Your task to perform on an android device: open app "ColorNote Notepad Notes" (install if not already installed) Image 0: 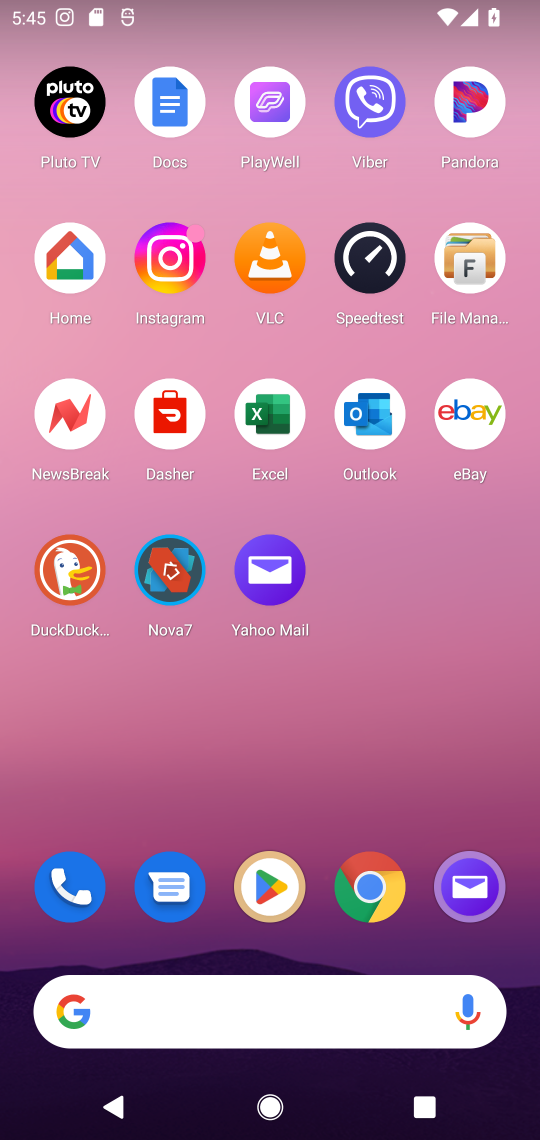
Step 0: click (271, 880)
Your task to perform on an android device: open app "ColorNote Notepad Notes" (install if not already installed) Image 1: 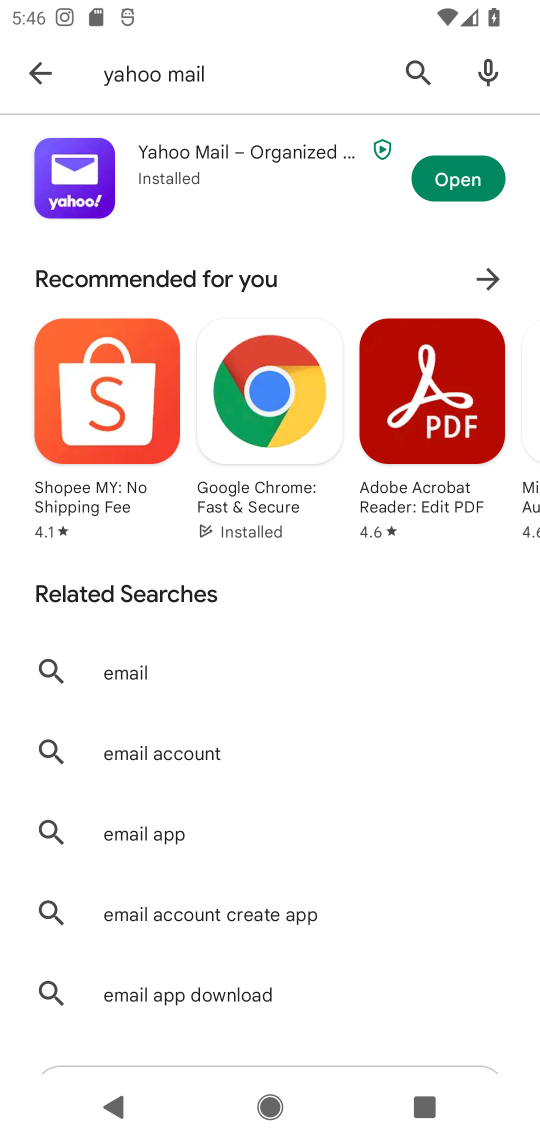
Step 1: click (411, 69)
Your task to perform on an android device: open app "ColorNote Notepad Notes" (install if not already installed) Image 2: 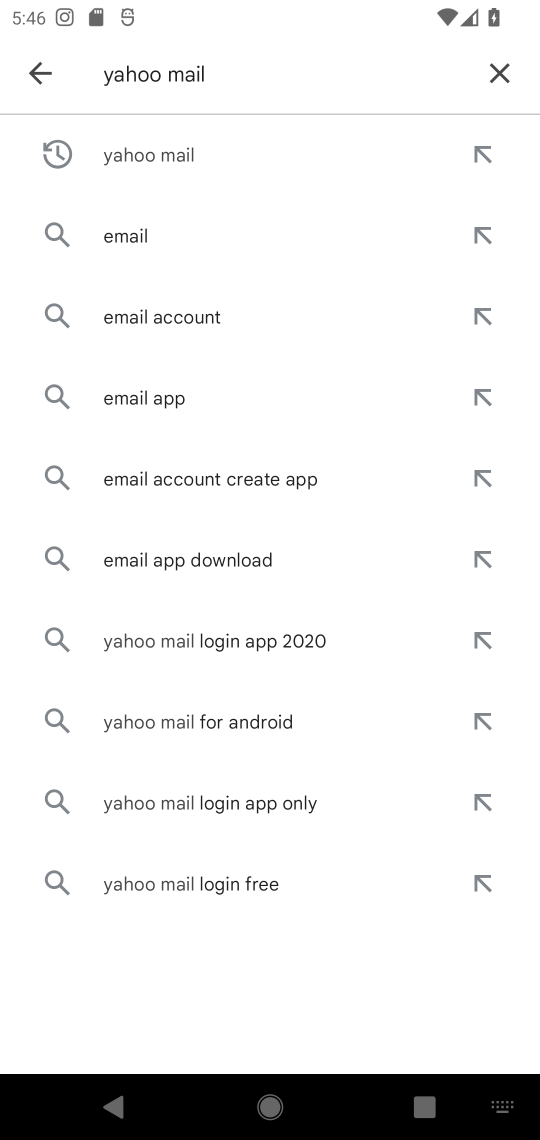
Step 2: click (494, 68)
Your task to perform on an android device: open app "ColorNote Notepad Notes" (install if not already installed) Image 3: 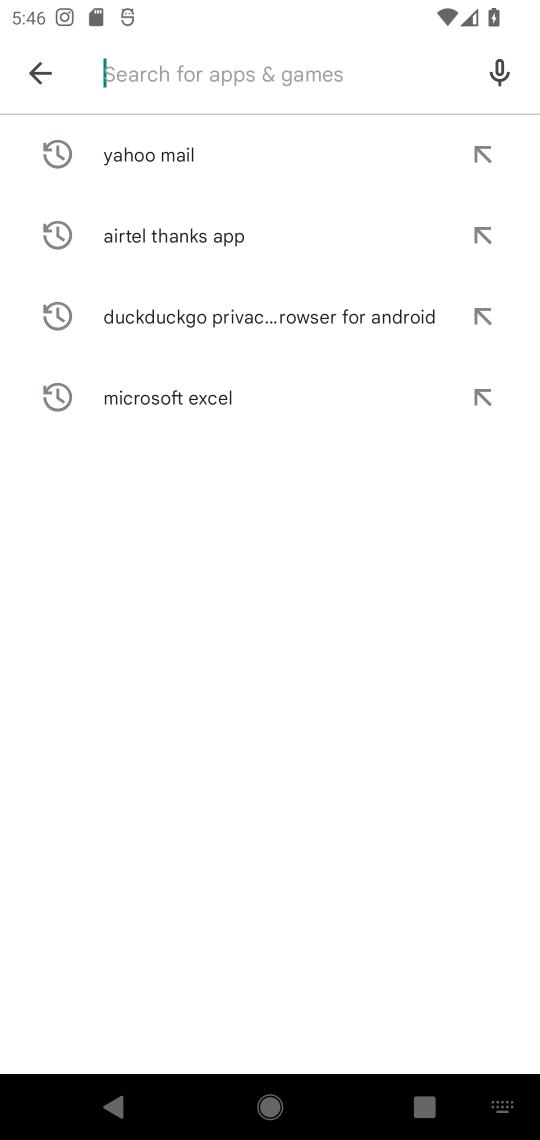
Step 3: type "ColorNote Notepad Notes"
Your task to perform on an android device: open app "ColorNote Notepad Notes" (install if not already installed) Image 4: 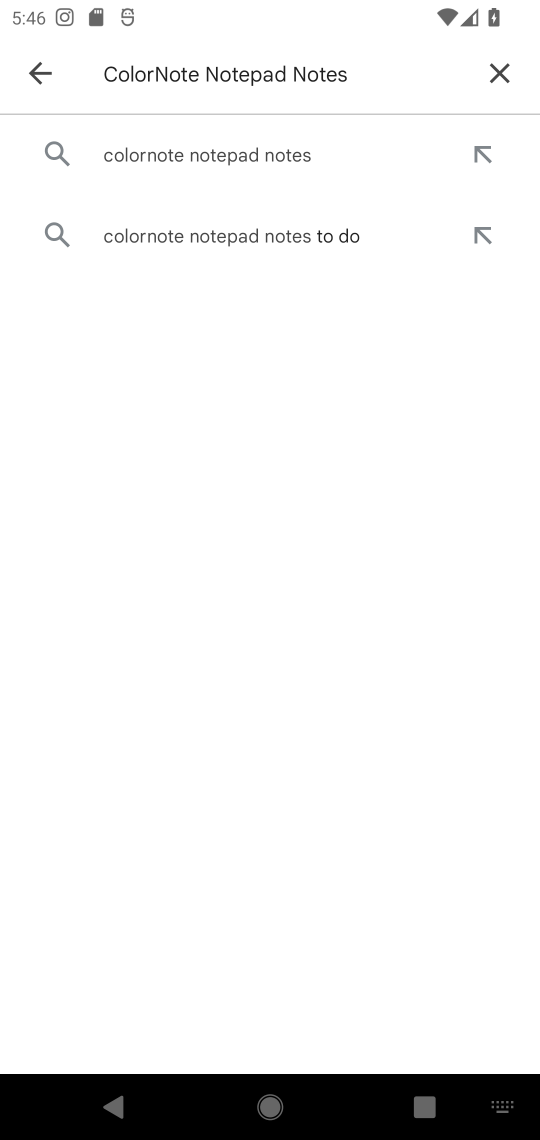
Step 4: click (238, 157)
Your task to perform on an android device: open app "ColorNote Notepad Notes" (install if not already installed) Image 5: 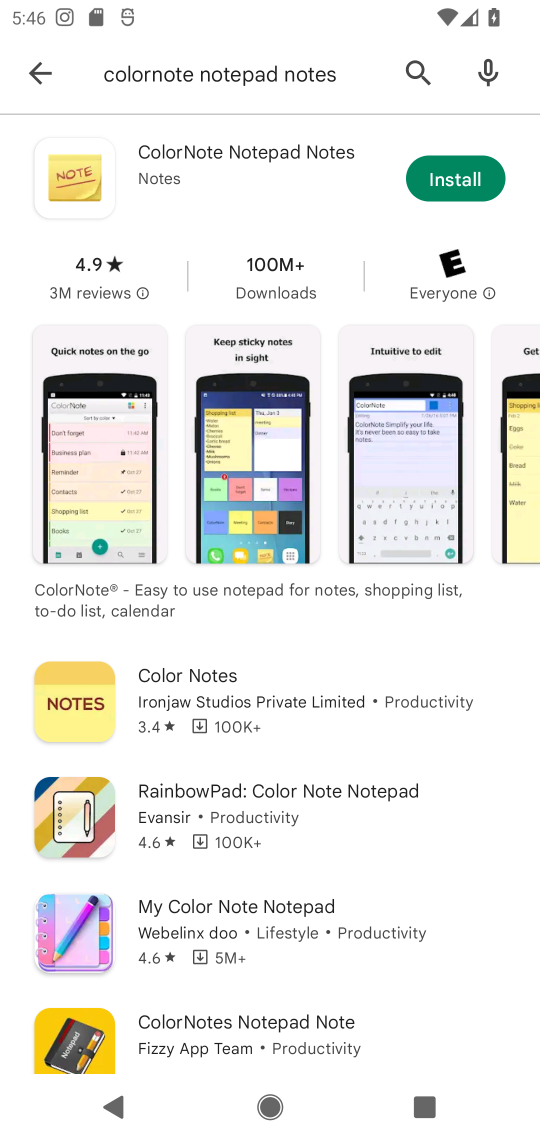
Step 5: click (436, 176)
Your task to perform on an android device: open app "ColorNote Notepad Notes" (install if not already installed) Image 6: 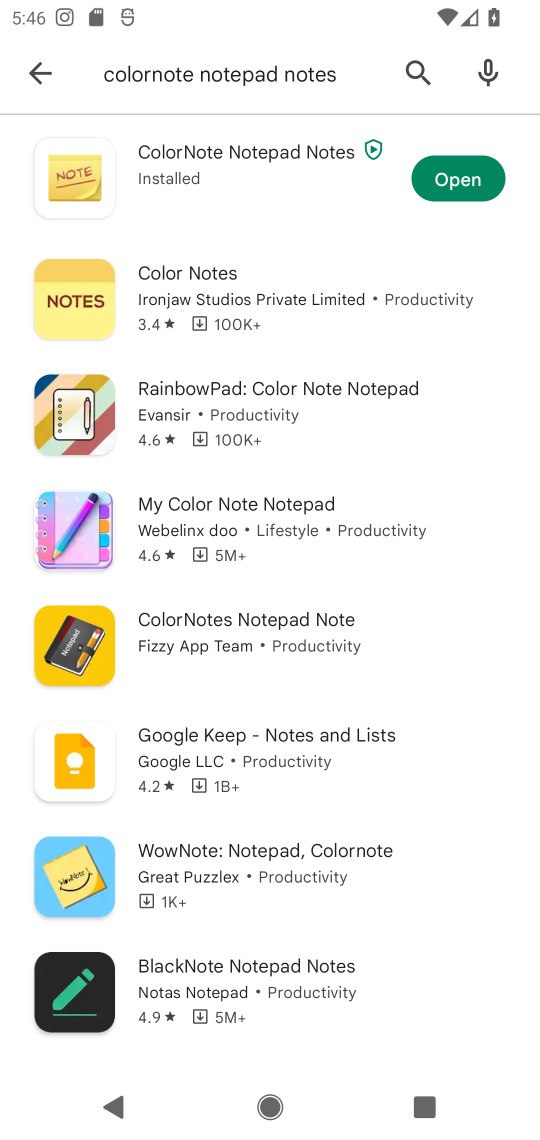
Step 6: click (465, 178)
Your task to perform on an android device: open app "ColorNote Notepad Notes" (install if not already installed) Image 7: 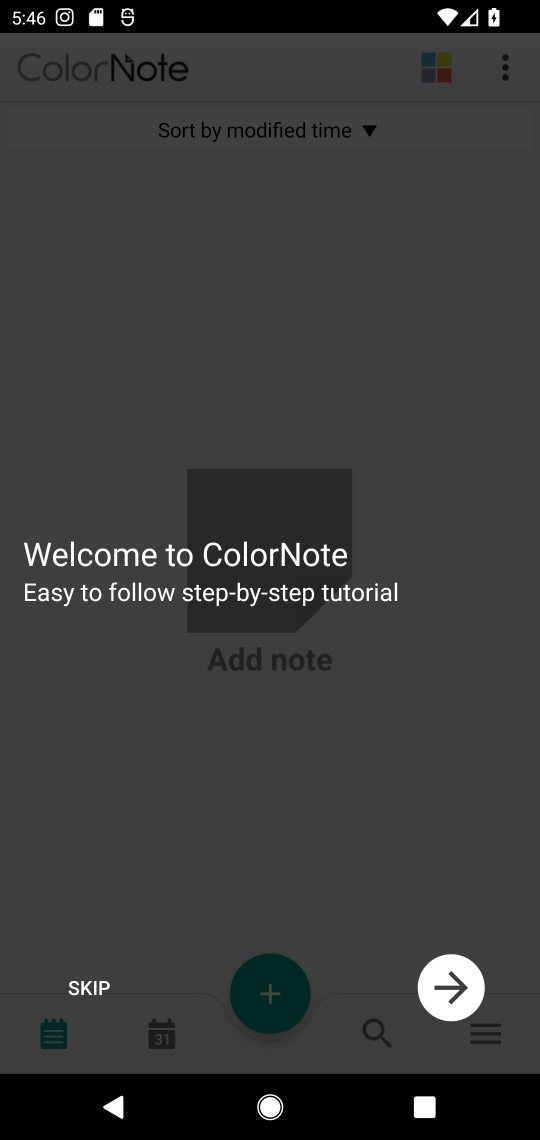
Step 7: task complete